Your task to perform on an android device: turn on priority inbox in the gmail app Image 0: 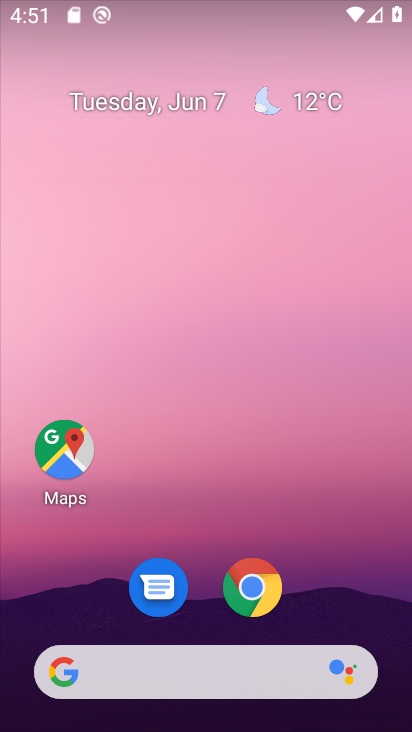
Step 0: drag from (283, 621) to (193, 119)
Your task to perform on an android device: turn on priority inbox in the gmail app Image 1: 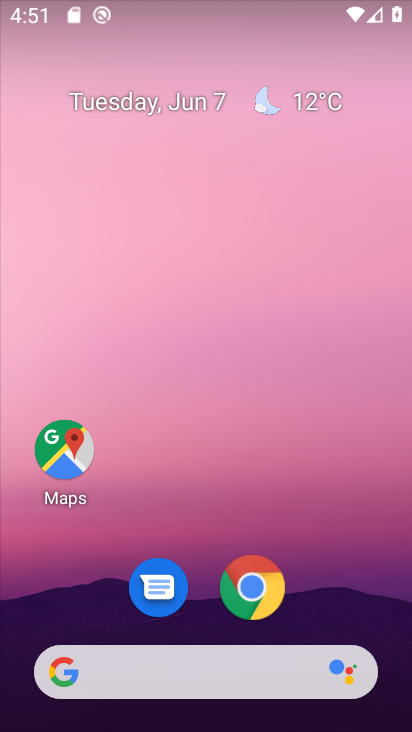
Step 1: drag from (234, 464) to (126, 96)
Your task to perform on an android device: turn on priority inbox in the gmail app Image 2: 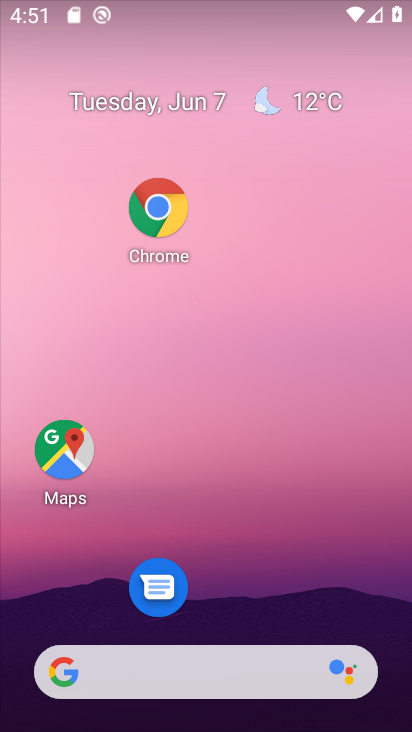
Step 2: drag from (221, 699) to (309, 183)
Your task to perform on an android device: turn on priority inbox in the gmail app Image 3: 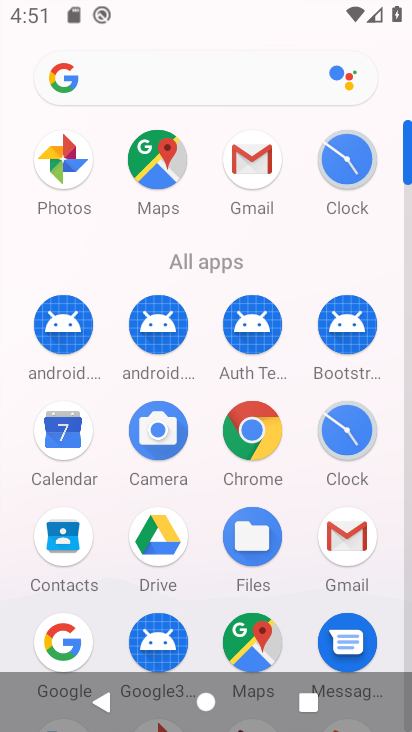
Step 3: drag from (280, 635) to (245, 171)
Your task to perform on an android device: turn on priority inbox in the gmail app Image 4: 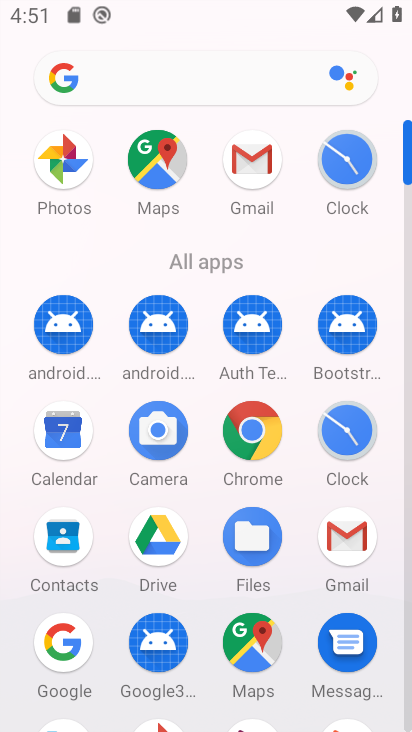
Step 4: click (330, 541)
Your task to perform on an android device: turn on priority inbox in the gmail app Image 5: 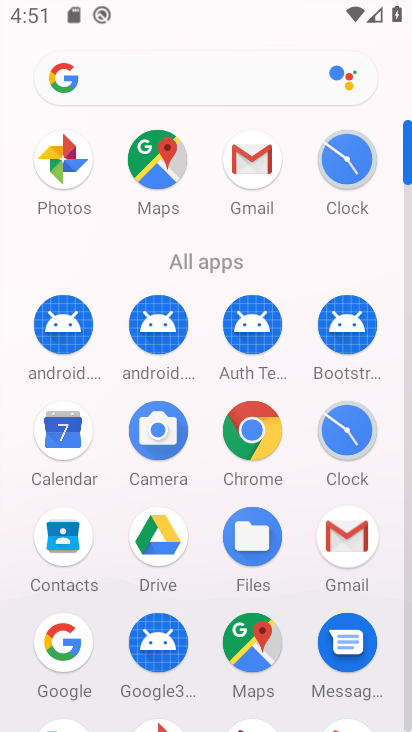
Step 5: click (331, 540)
Your task to perform on an android device: turn on priority inbox in the gmail app Image 6: 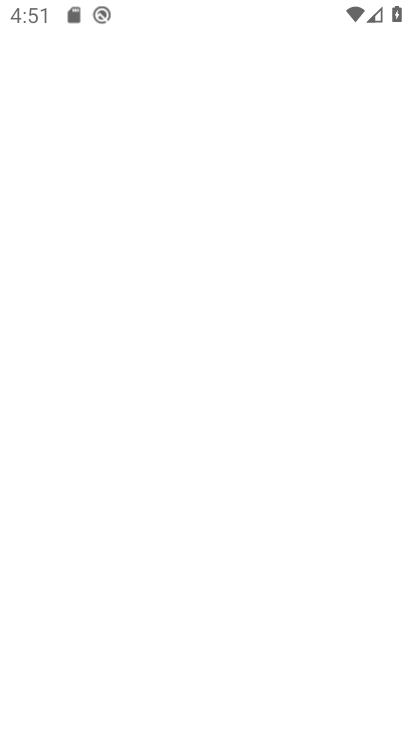
Step 6: click (336, 542)
Your task to perform on an android device: turn on priority inbox in the gmail app Image 7: 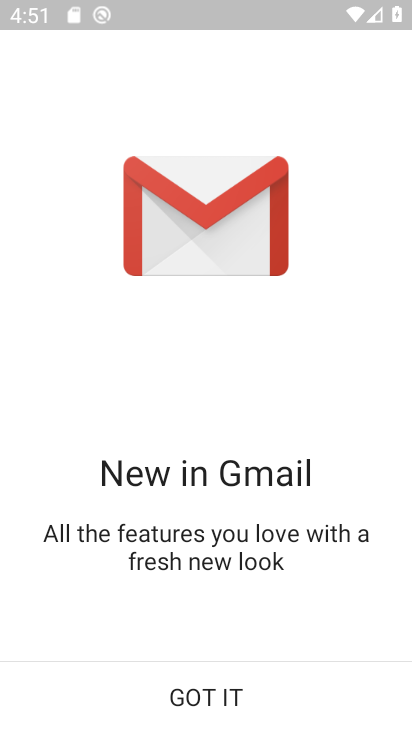
Step 7: click (212, 704)
Your task to perform on an android device: turn on priority inbox in the gmail app Image 8: 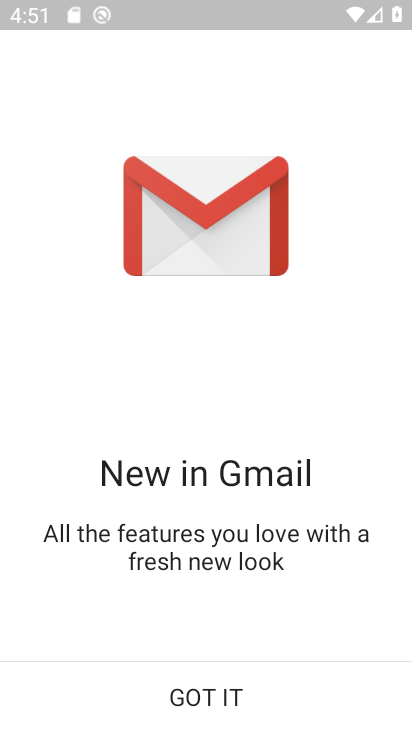
Step 8: click (212, 704)
Your task to perform on an android device: turn on priority inbox in the gmail app Image 9: 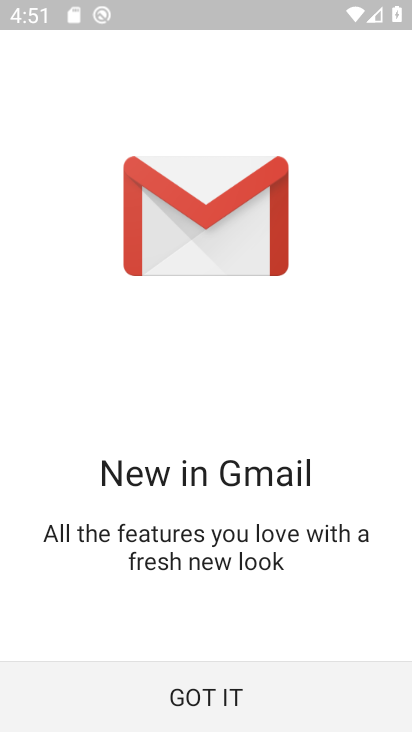
Step 9: click (211, 703)
Your task to perform on an android device: turn on priority inbox in the gmail app Image 10: 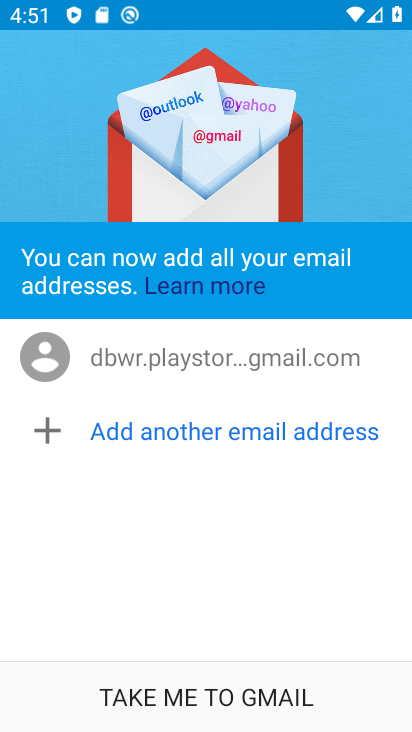
Step 10: click (220, 690)
Your task to perform on an android device: turn on priority inbox in the gmail app Image 11: 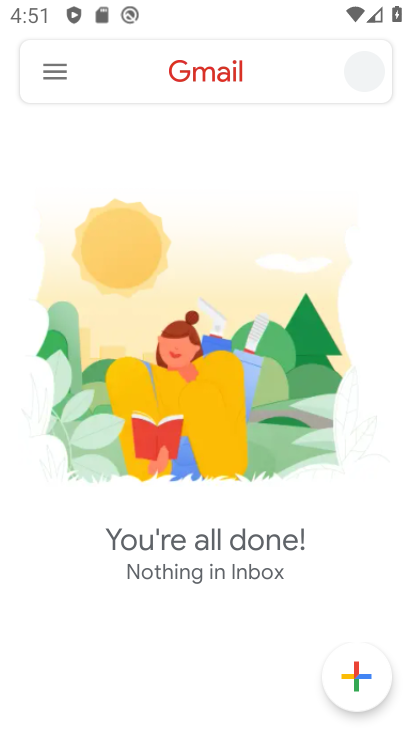
Step 11: click (65, 69)
Your task to perform on an android device: turn on priority inbox in the gmail app Image 12: 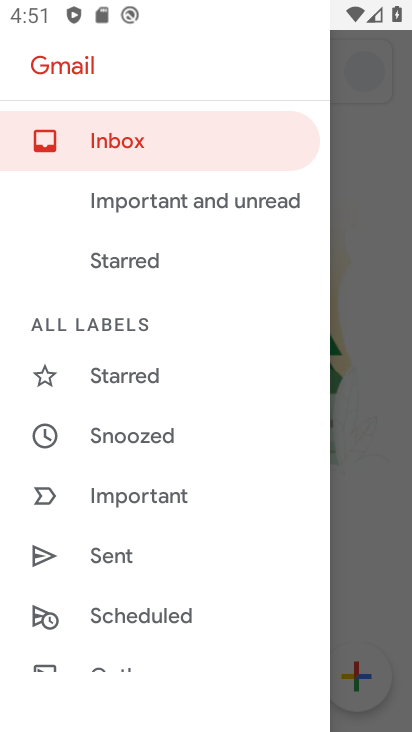
Step 12: drag from (144, 586) to (102, 256)
Your task to perform on an android device: turn on priority inbox in the gmail app Image 13: 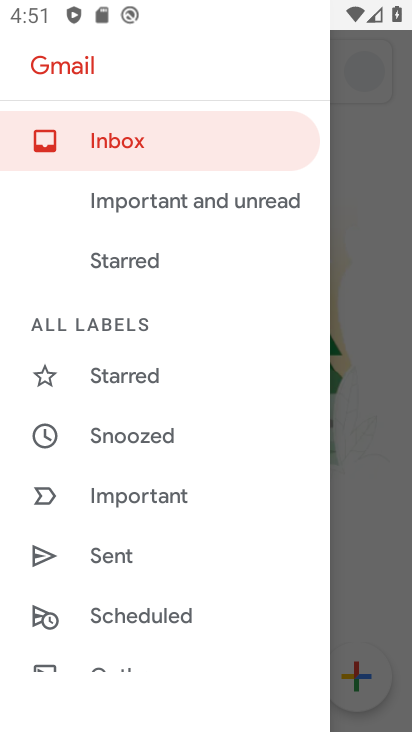
Step 13: click (107, 202)
Your task to perform on an android device: turn on priority inbox in the gmail app Image 14: 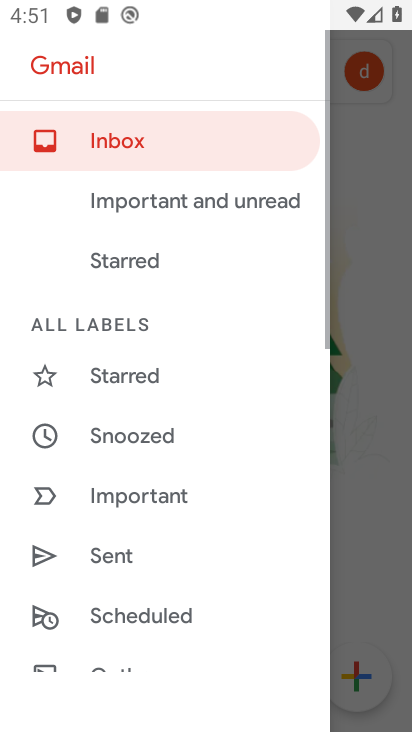
Step 14: drag from (151, 436) to (129, 185)
Your task to perform on an android device: turn on priority inbox in the gmail app Image 15: 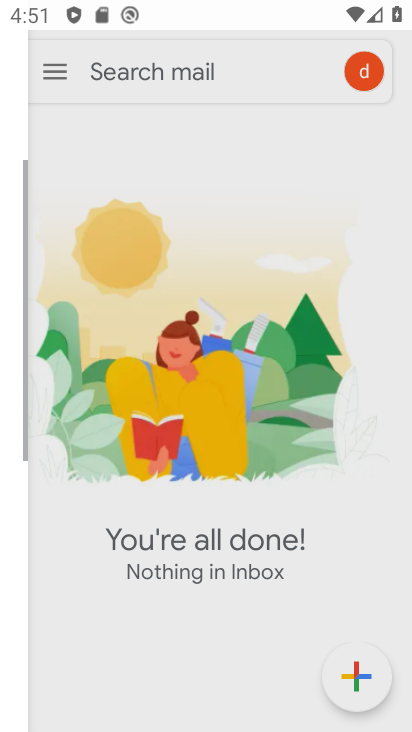
Step 15: drag from (151, 425) to (116, 170)
Your task to perform on an android device: turn on priority inbox in the gmail app Image 16: 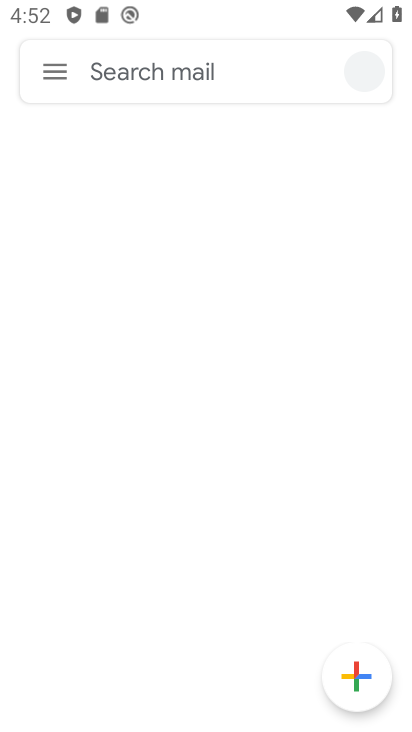
Step 16: drag from (169, 532) to (168, 268)
Your task to perform on an android device: turn on priority inbox in the gmail app Image 17: 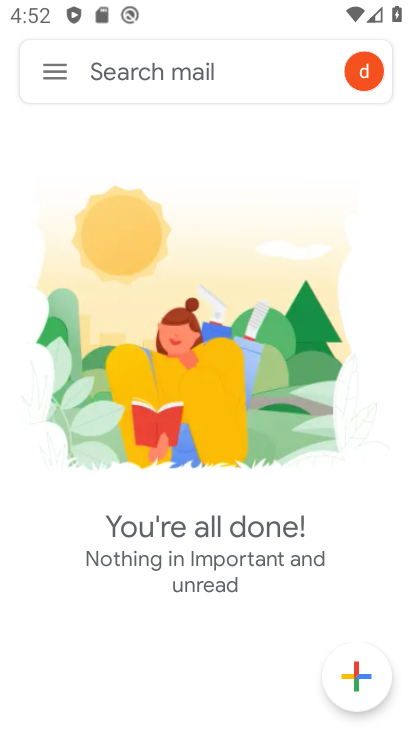
Step 17: click (55, 78)
Your task to perform on an android device: turn on priority inbox in the gmail app Image 18: 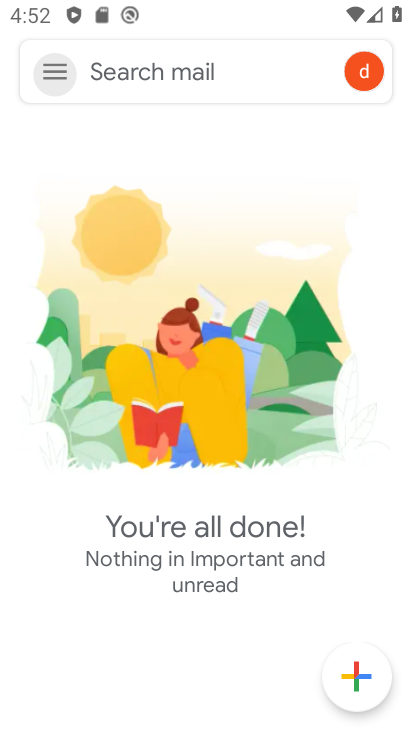
Step 18: click (55, 78)
Your task to perform on an android device: turn on priority inbox in the gmail app Image 19: 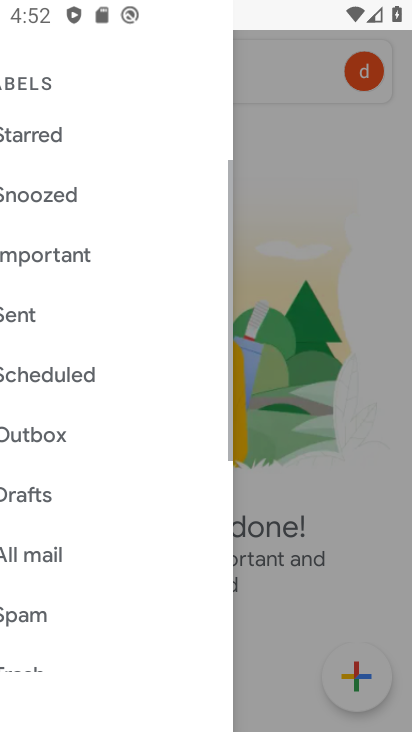
Step 19: click (55, 78)
Your task to perform on an android device: turn on priority inbox in the gmail app Image 20: 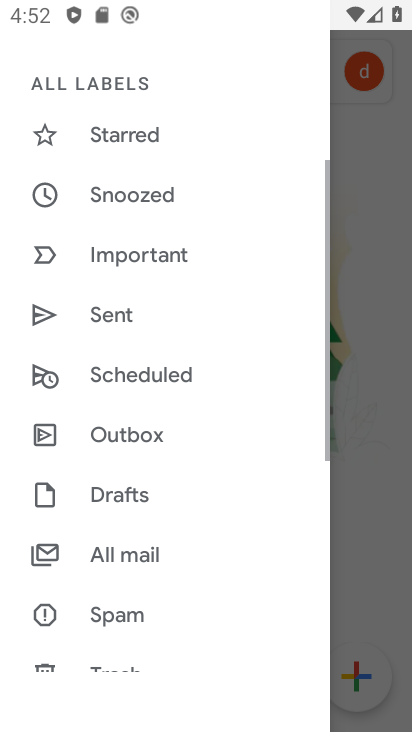
Step 20: drag from (141, 515) to (103, 167)
Your task to perform on an android device: turn on priority inbox in the gmail app Image 21: 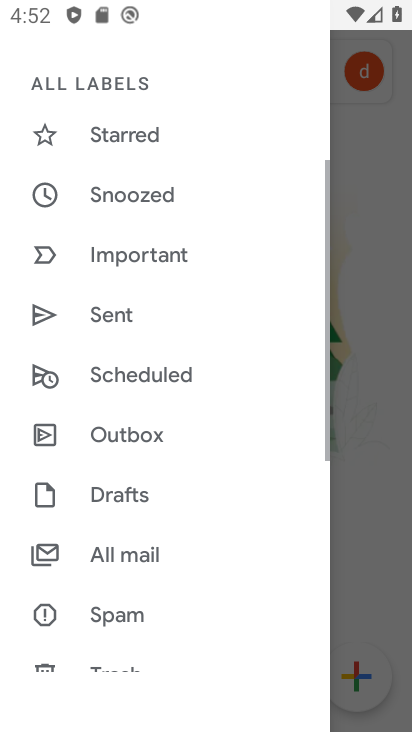
Step 21: drag from (134, 490) to (106, 219)
Your task to perform on an android device: turn on priority inbox in the gmail app Image 22: 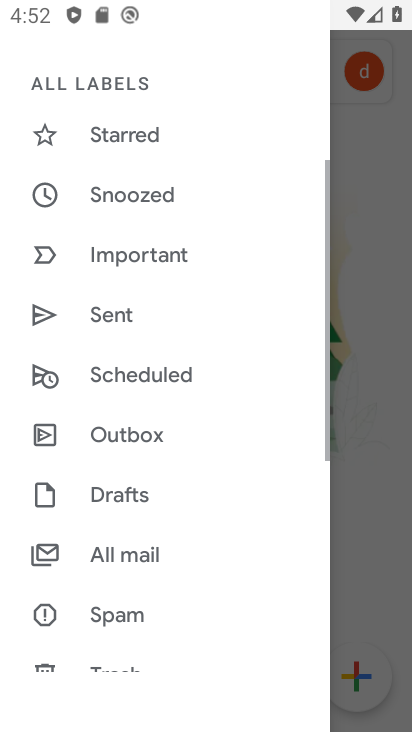
Step 22: drag from (119, 518) to (125, 286)
Your task to perform on an android device: turn on priority inbox in the gmail app Image 23: 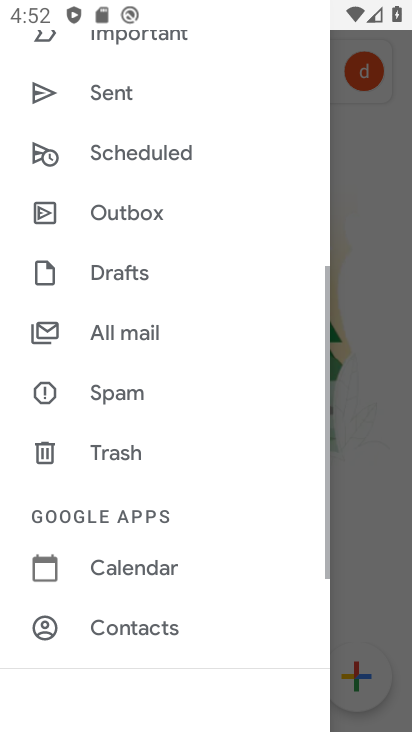
Step 23: drag from (145, 609) to (158, 256)
Your task to perform on an android device: turn on priority inbox in the gmail app Image 24: 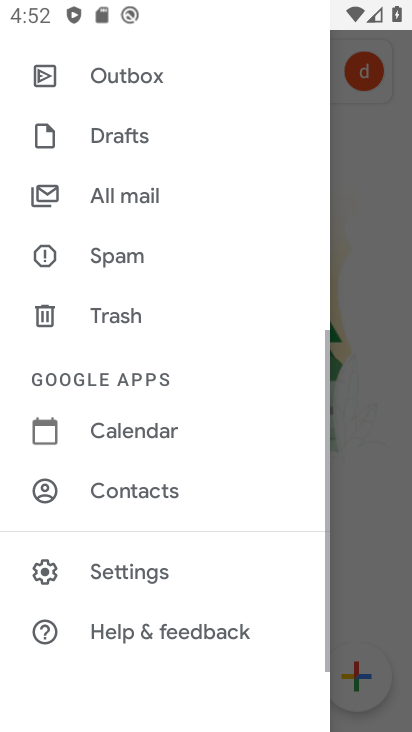
Step 24: drag from (193, 600) to (180, 234)
Your task to perform on an android device: turn on priority inbox in the gmail app Image 25: 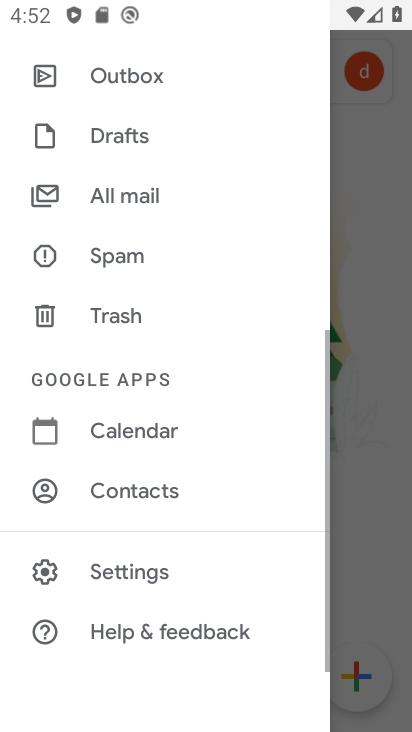
Step 25: click (140, 568)
Your task to perform on an android device: turn on priority inbox in the gmail app Image 26: 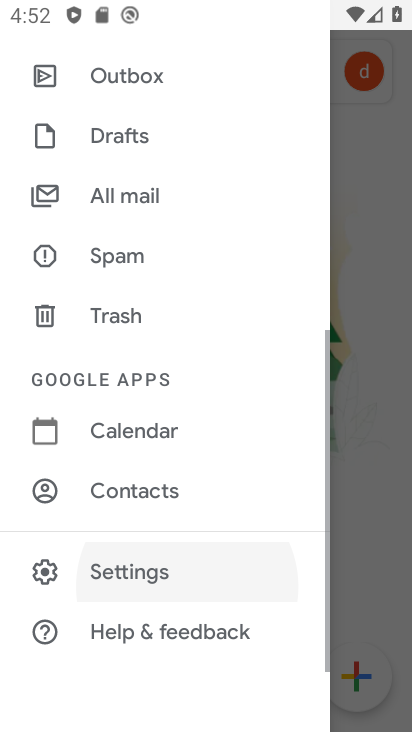
Step 26: click (140, 568)
Your task to perform on an android device: turn on priority inbox in the gmail app Image 27: 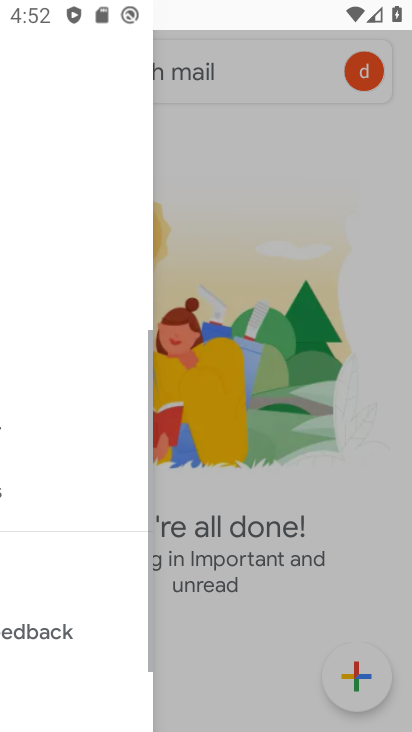
Step 27: click (140, 568)
Your task to perform on an android device: turn on priority inbox in the gmail app Image 28: 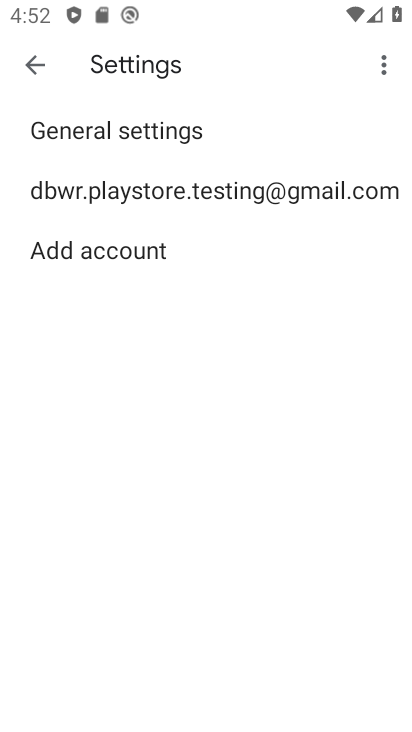
Step 28: click (208, 198)
Your task to perform on an android device: turn on priority inbox in the gmail app Image 29: 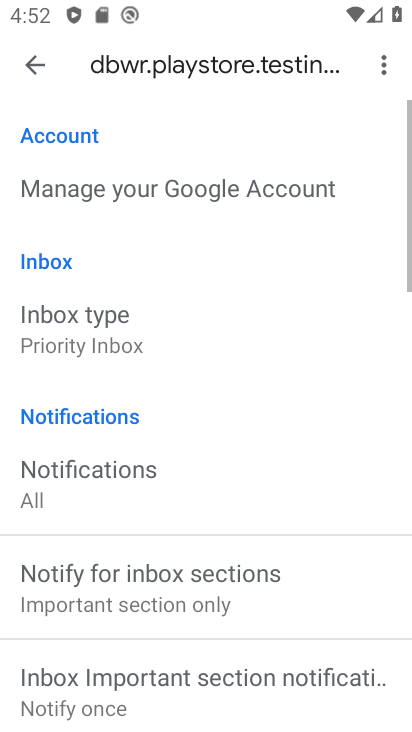
Step 29: task complete